Your task to perform on an android device: Open settings on Google Maps Image 0: 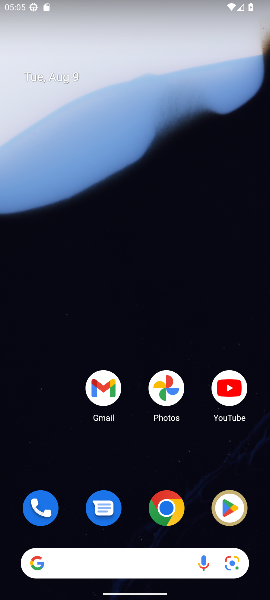
Step 0: drag from (135, 459) to (117, 147)
Your task to perform on an android device: Open settings on Google Maps Image 1: 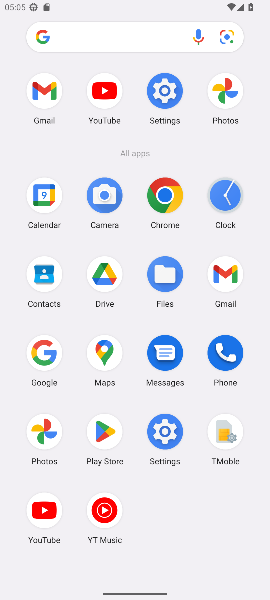
Step 1: click (105, 356)
Your task to perform on an android device: Open settings on Google Maps Image 2: 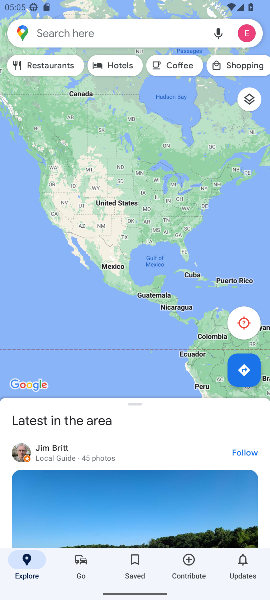
Step 2: click (247, 30)
Your task to perform on an android device: Open settings on Google Maps Image 3: 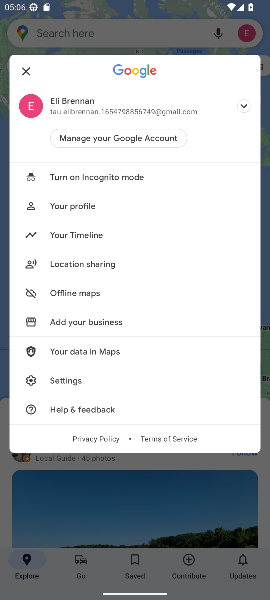
Step 3: click (70, 380)
Your task to perform on an android device: Open settings on Google Maps Image 4: 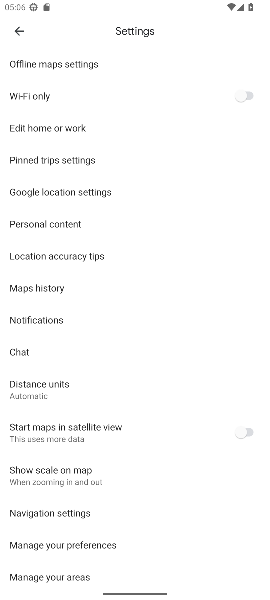
Step 4: task complete